Your task to perform on an android device: Open Google Chrome and click the shortcut for Amazon.com Image 0: 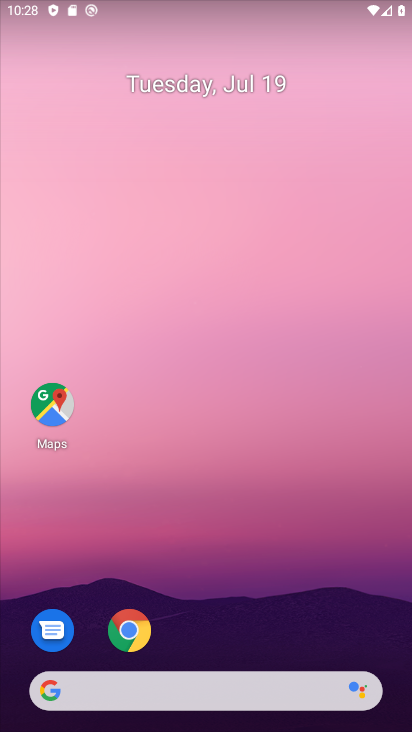
Step 0: drag from (246, 669) to (226, 278)
Your task to perform on an android device: Open Google Chrome and click the shortcut for Amazon.com Image 1: 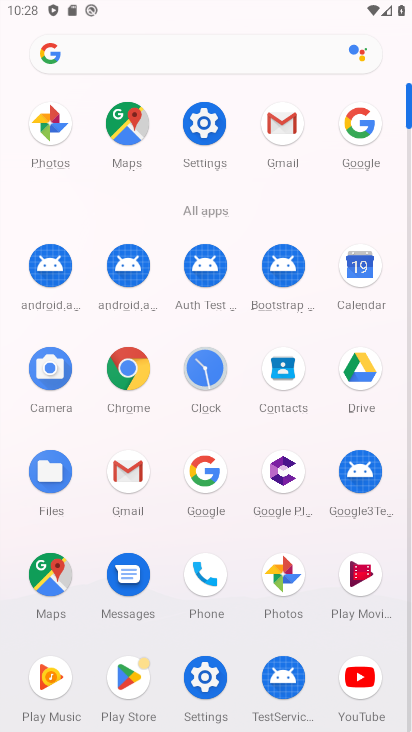
Step 1: click (122, 362)
Your task to perform on an android device: Open Google Chrome and click the shortcut for Amazon.com Image 2: 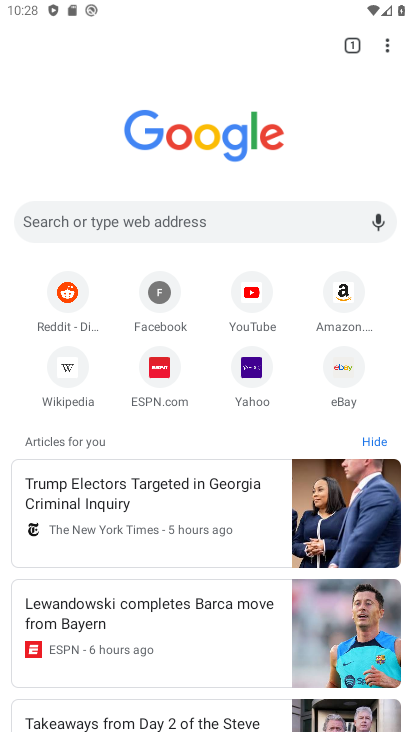
Step 2: click (338, 287)
Your task to perform on an android device: Open Google Chrome and click the shortcut for Amazon.com Image 3: 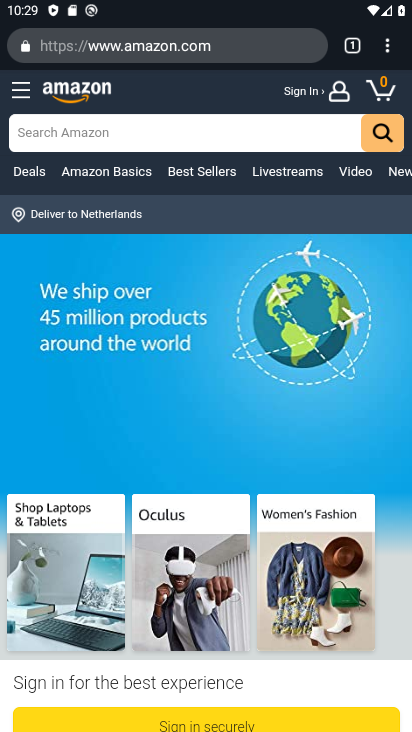
Step 3: task complete